Your task to perform on an android device: Open ESPN.com Image 0: 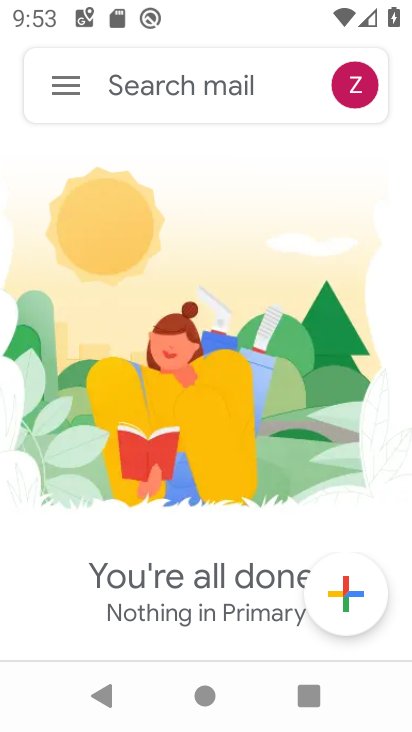
Step 0: press home button
Your task to perform on an android device: Open ESPN.com Image 1: 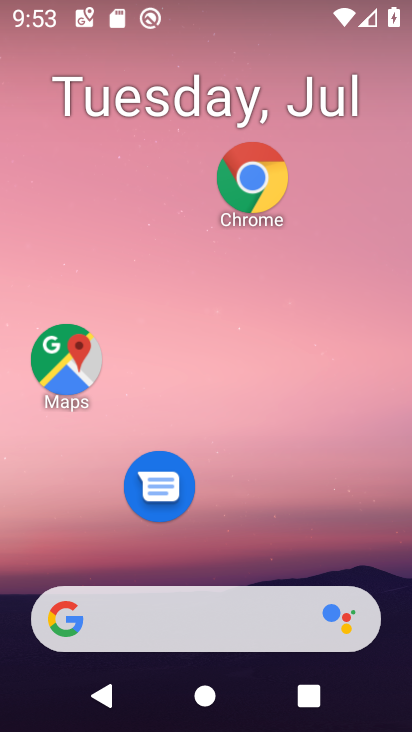
Step 1: drag from (225, 610) to (258, 176)
Your task to perform on an android device: Open ESPN.com Image 2: 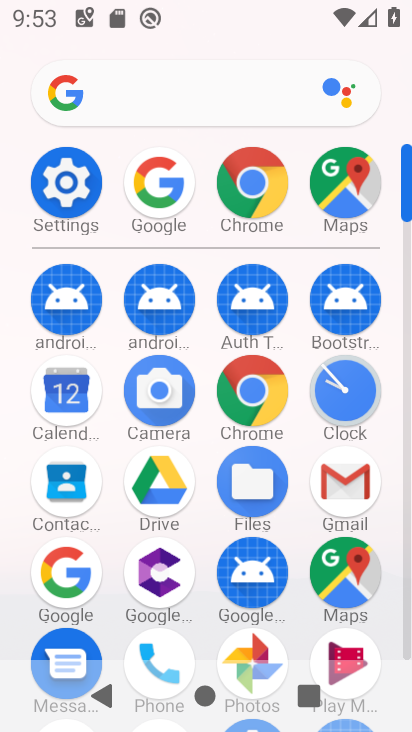
Step 2: click (255, 183)
Your task to perform on an android device: Open ESPN.com Image 3: 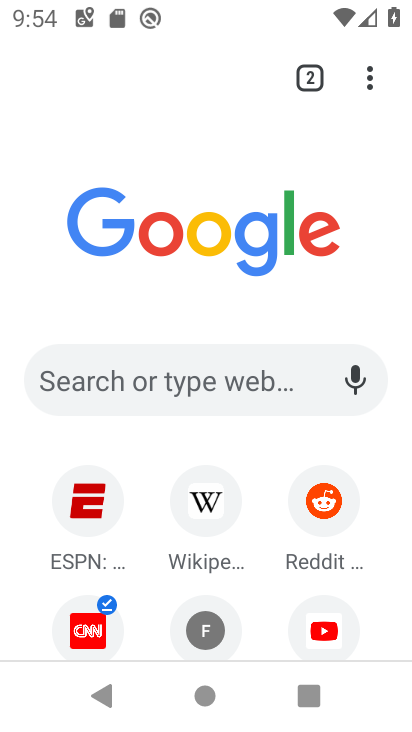
Step 3: click (99, 516)
Your task to perform on an android device: Open ESPN.com Image 4: 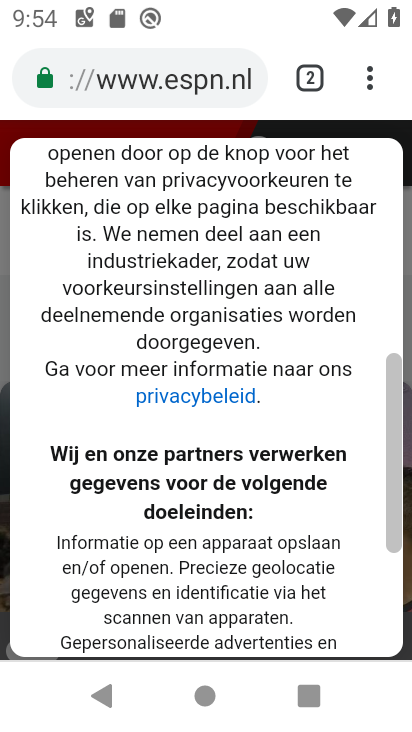
Step 4: task complete